Your task to perform on an android device: Open display settings Image 0: 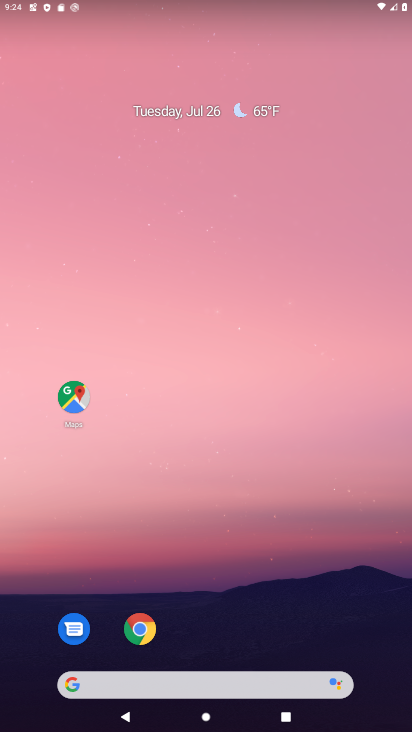
Step 0: drag from (327, 620) to (117, 94)
Your task to perform on an android device: Open display settings Image 1: 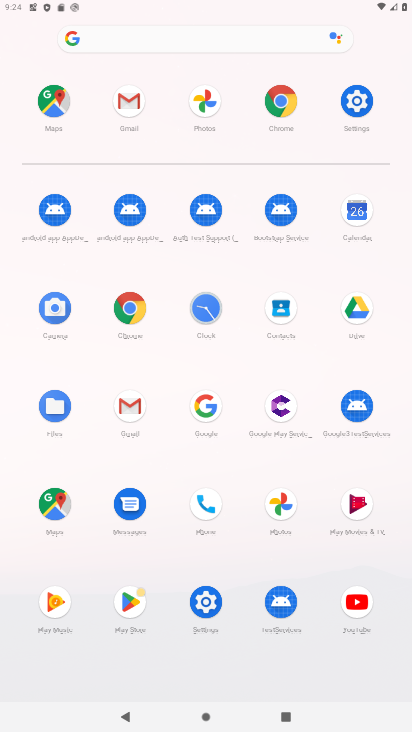
Step 1: click (361, 102)
Your task to perform on an android device: Open display settings Image 2: 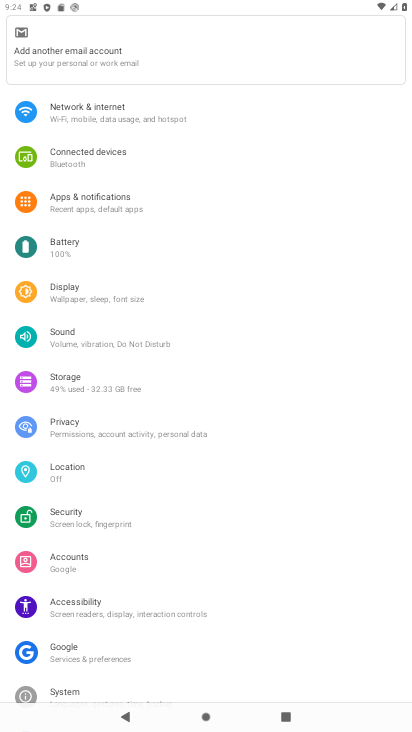
Step 2: click (81, 300)
Your task to perform on an android device: Open display settings Image 3: 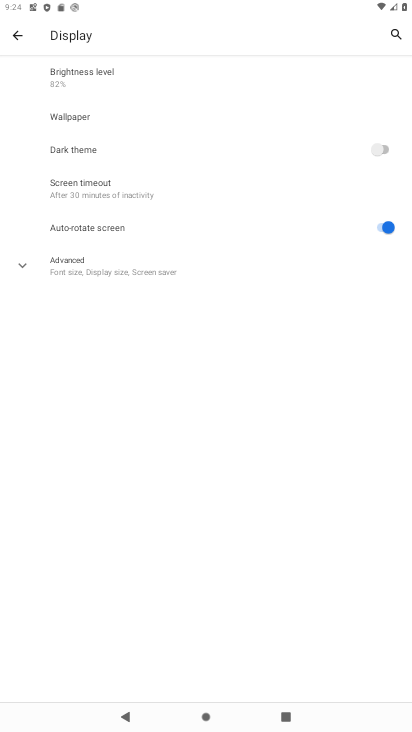
Step 3: task complete